Your task to perform on an android device: turn off improve location accuracy Image 0: 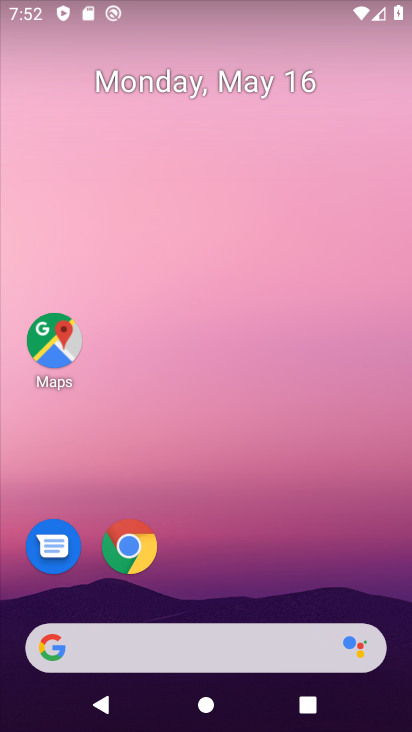
Step 0: drag from (270, 575) to (311, 43)
Your task to perform on an android device: turn off improve location accuracy Image 1: 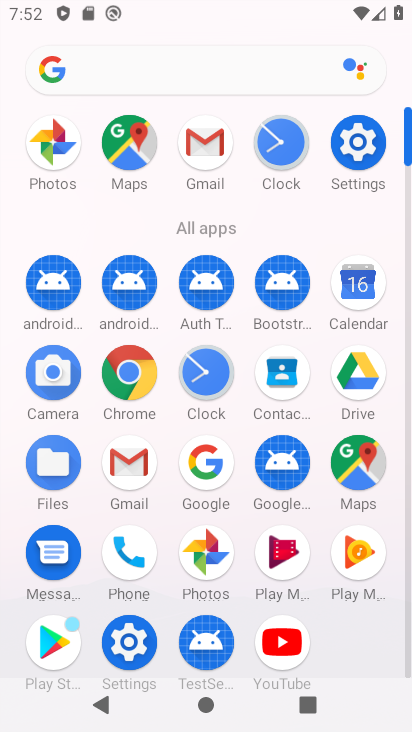
Step 1: click (352, 163)
Your task to perform on an android device: turn off improve location accuracy Image 2: 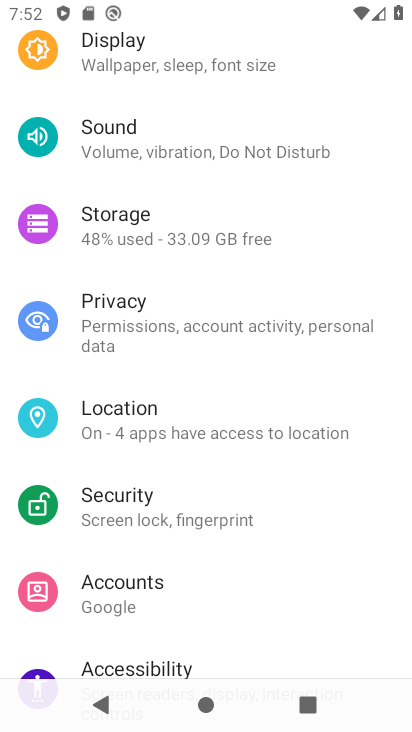
Step 2: drag from (161, 590) to (175, 467)
Your task to perform on an android device: turn off improve location accuracy Image 3: 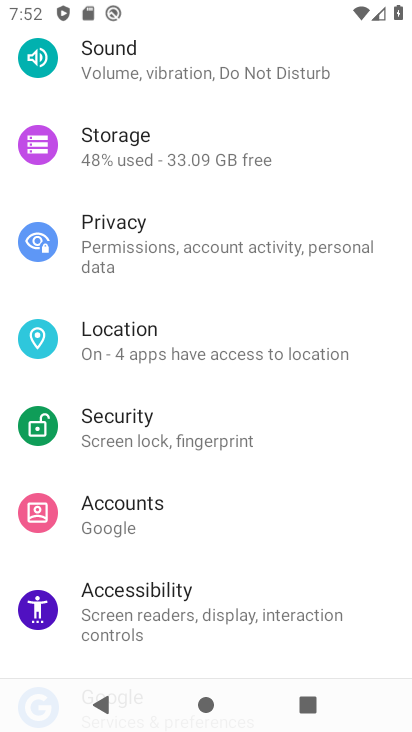
Step 3: click (241, 356)
Your task to perform on an android device: turn off improve location accuracy Image 4: 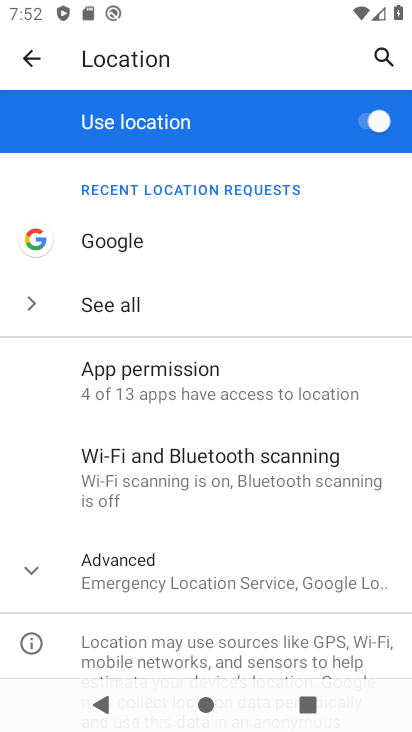
Step 4: drag from (181, 556) to (293, 179)
Your task to perform on an android device: turn off improve location accuracy Image 5: 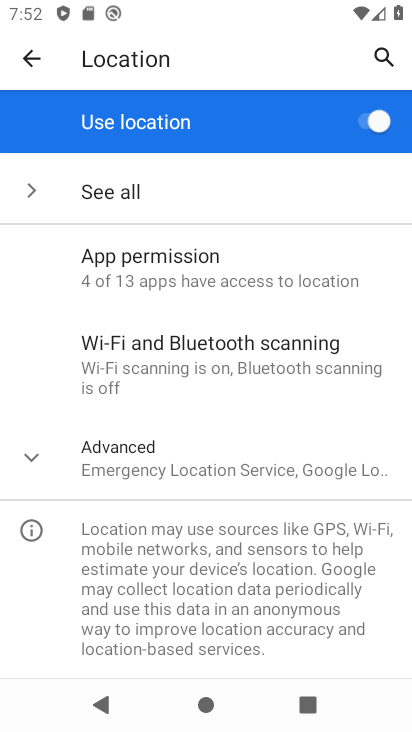
Step 5: click (179, 448)
Your task to perform on an android device: turn off improve location accuracy Image 6: 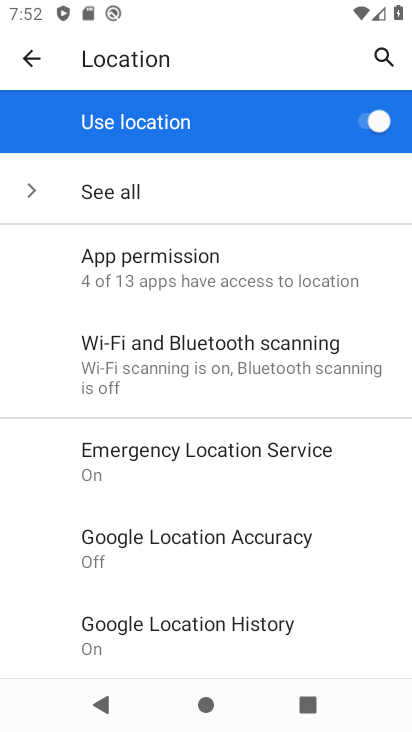
Step 6: click (149, 529)
Your task to perform on an android device: turn off improve location accuracy Image 7: 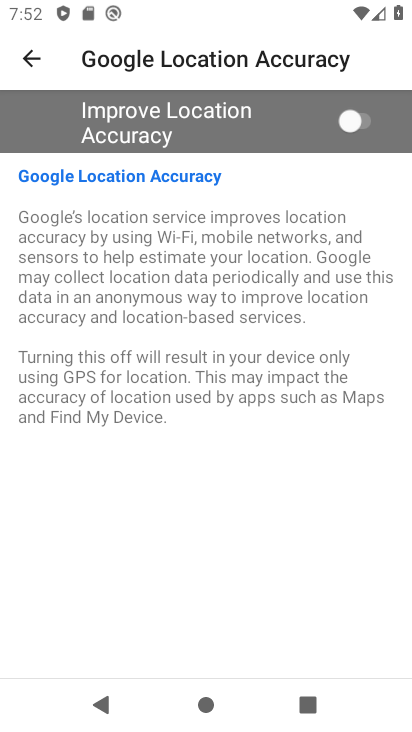
Step 7: click (354, 120)
Your task to perform on an android device: turn off improve location accuracy Image 8: 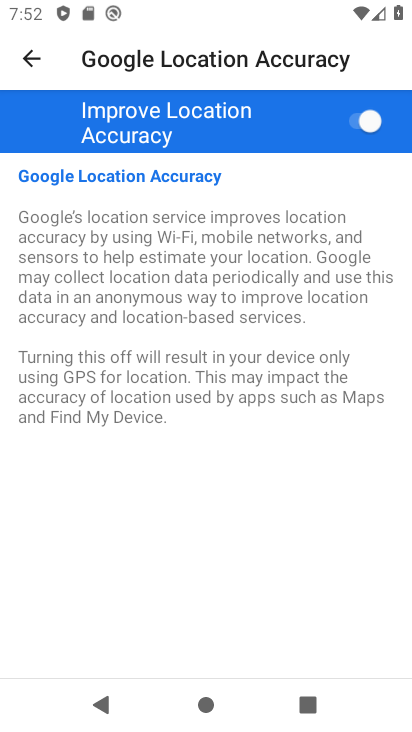
Step 8: task complete